Your task to perform on an android device: turn notification dots on Image 0: 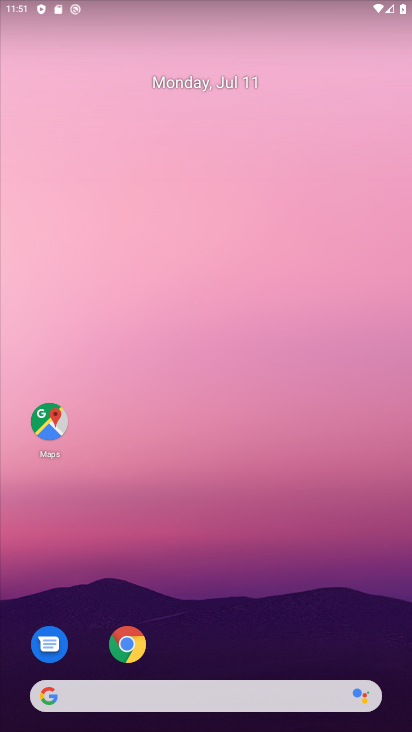
Step 0: click (54, 687)
Your task to perform on an android device: turn notification dots on Image 1: 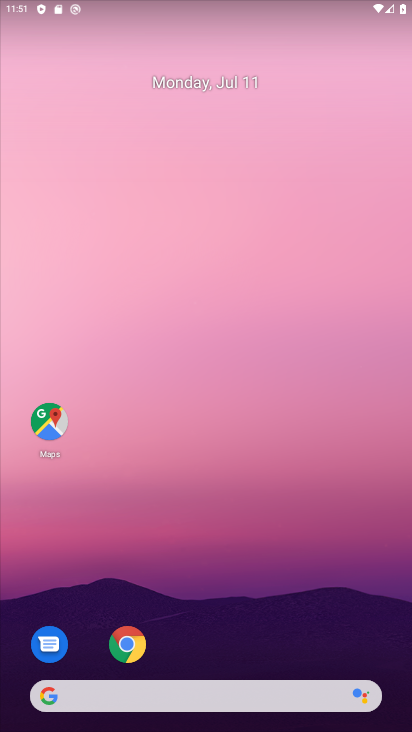
Step 1: drag from (6, 704) to (115, 0)
Your task to perform on an android device: turn notification dots on Image 2: 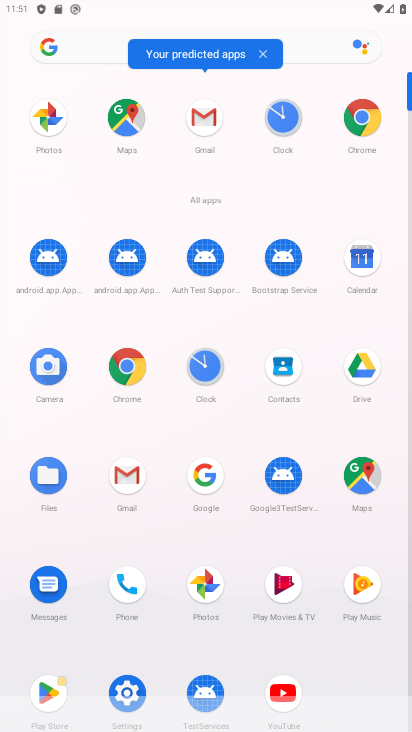
Step 2: click (121, 685)
Your task to perform on an android device: turn notification dots on Image 3: 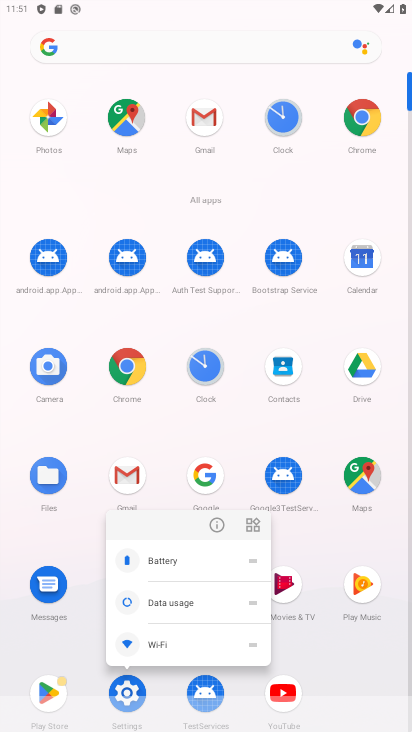
Step 3: click (132, 692)
Your task to perform on an android device: turn notification dots on Image 4: 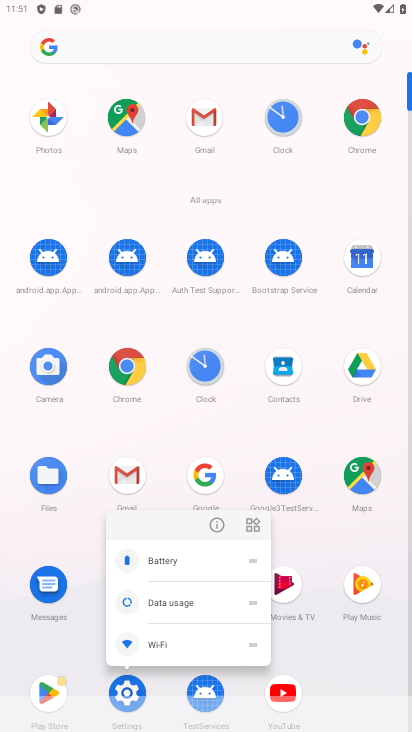
Step 4: click (133, 691)
Your task to perform on an android device: turn notification dots on Image 5: 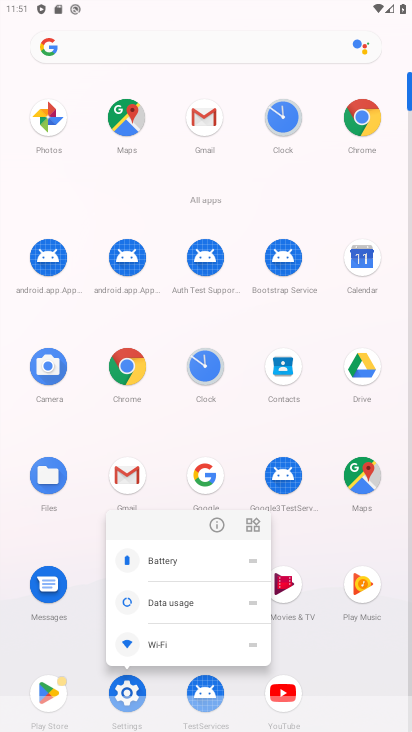
Step 5: click (131, 686)
Your task to perform on an android device: turn notification dots on Image 6: 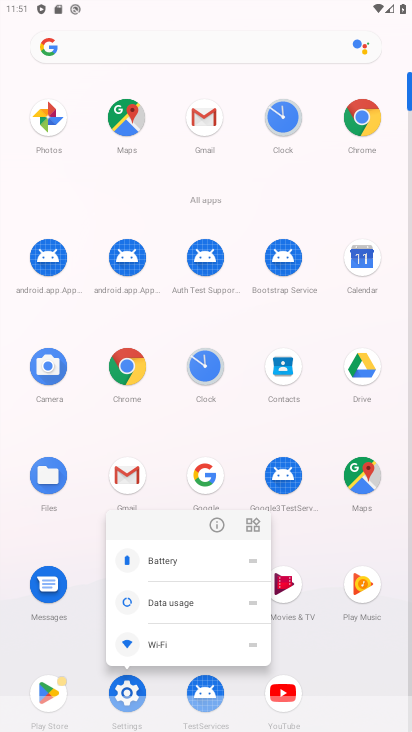
Step 6: click (126, 681)
Your task to perform on an android device: turn notification dots on Image 7: 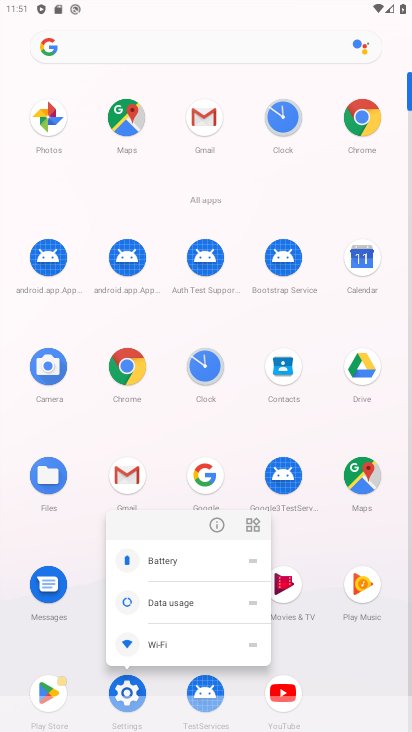
Step 7: task complete